Your task to perform on an android device: change notifications settings Image 0: 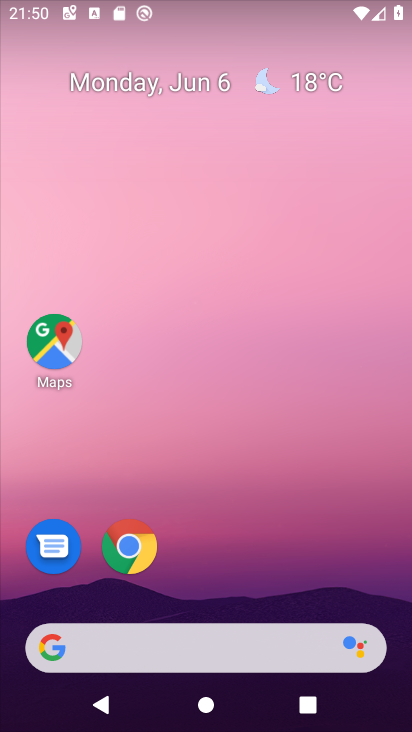
Step 0: drag from (376, 581) to (263, 13)
Your task to perform on an android device: change notifications settings Image 1: 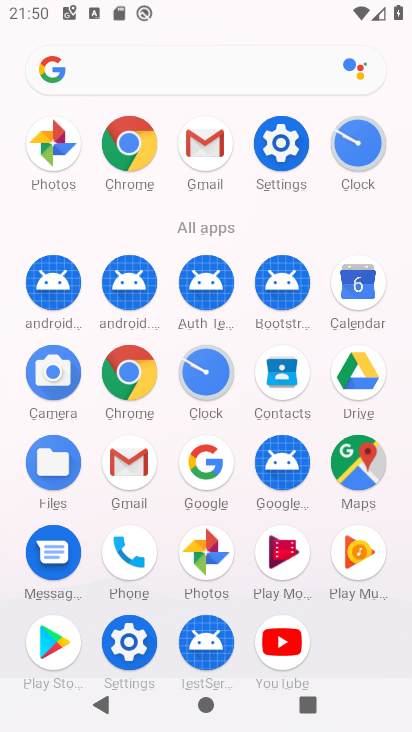
Step 1: click (128, 641)
Your task to perform on an android device: change notifications settings Image 2: 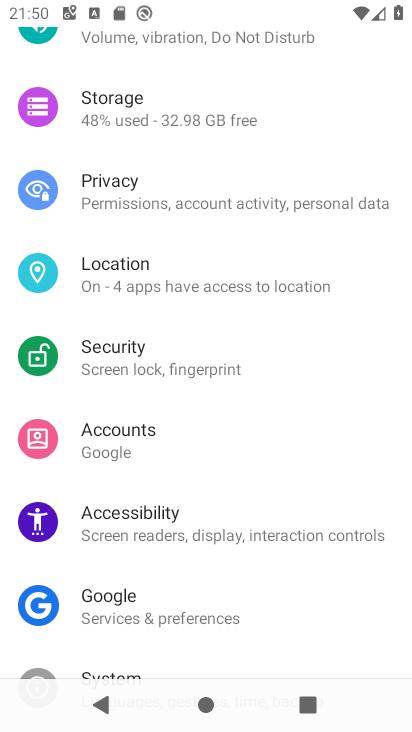
Step 2: drag from (265, 265) to (227, 632)
Your task to perform on an android device: change notifications settings Image 3: 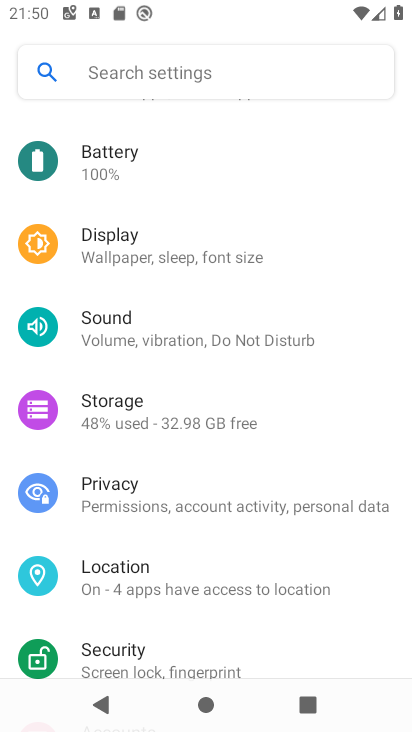
Step 3: drag from (305, 229) to (291, 494)
Your task to perform on an android device: change notifications settings Image 4: 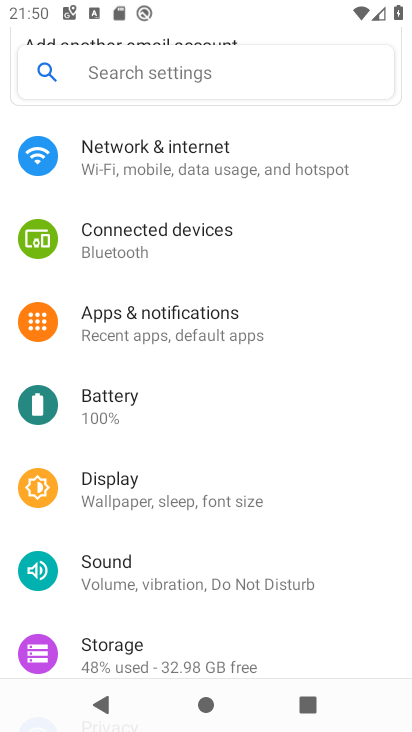
Step 4: click (138, 309)
Your task to perform on an android device: change notifications settings Image 5: 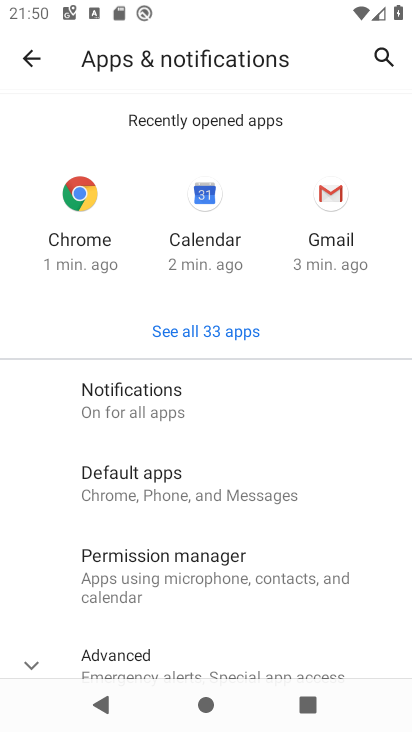
Step 5: click (95, 390)
Your task to perform on an android device: change notifications settings Image 6: 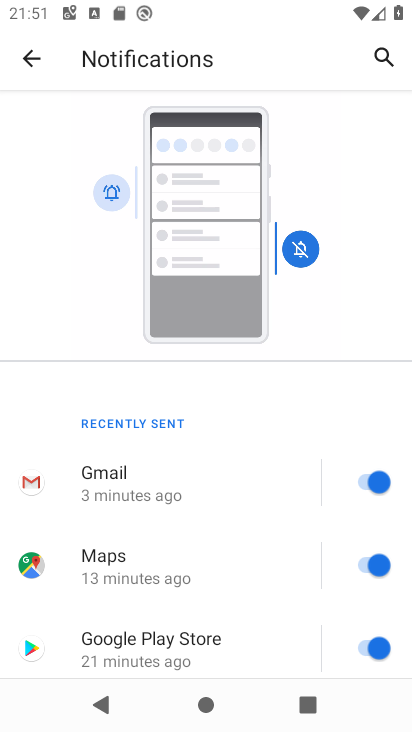
Step 6: drag from (321, 636) to (277, 227)
Your task to perform on an android device: change notifications settings Image 7: 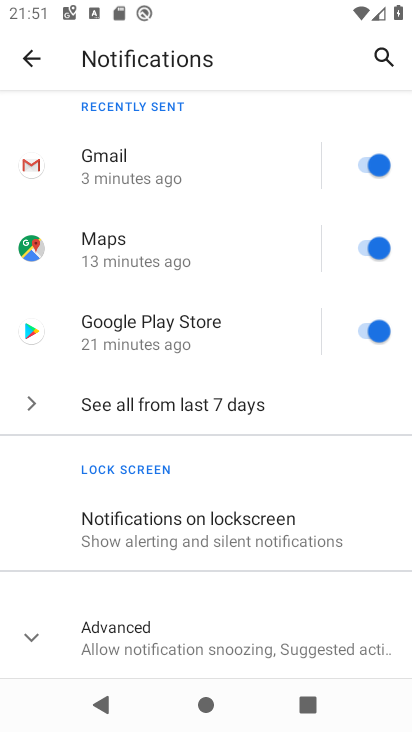
Step 7: click (23, 632)
Your task to perform on an android device: change notifications settings Image 8: 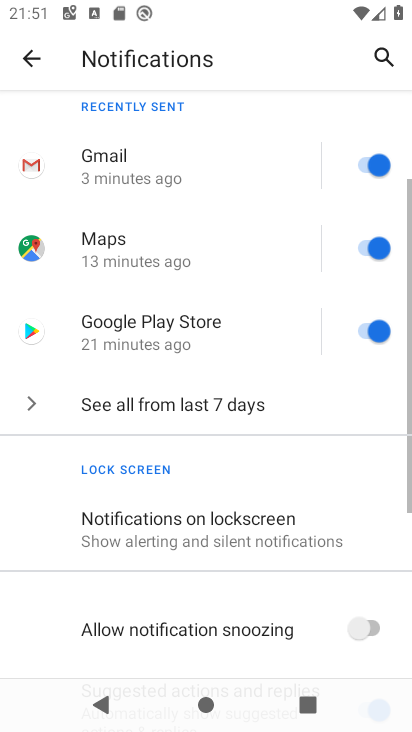
Step 8: drag from (235, 588) to (199, 136)
Your task to perform on an android device: change notifications settings Image 9: 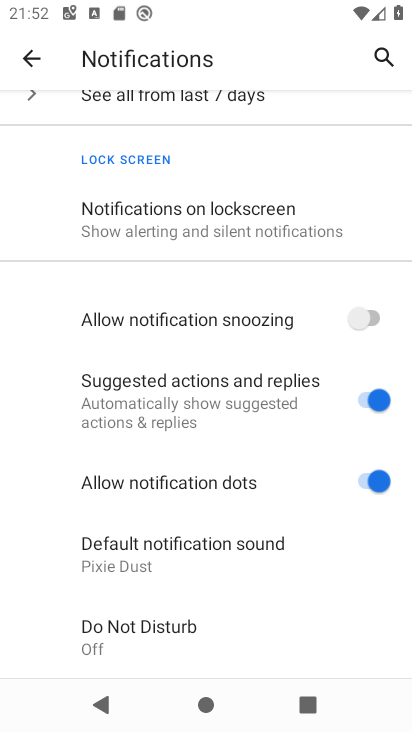
Step 9: click (373, 313)
Your task to perform on an android device: change notifications settings Image 10: 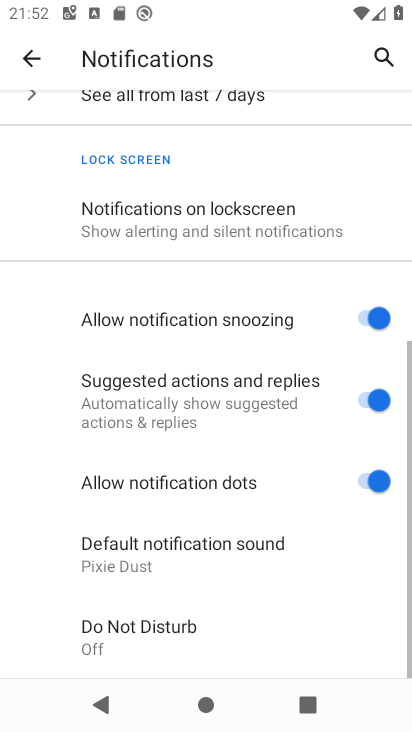
Step 10: click (362, 477)
Your task to perform on an android device: change notifications settings Image 11: 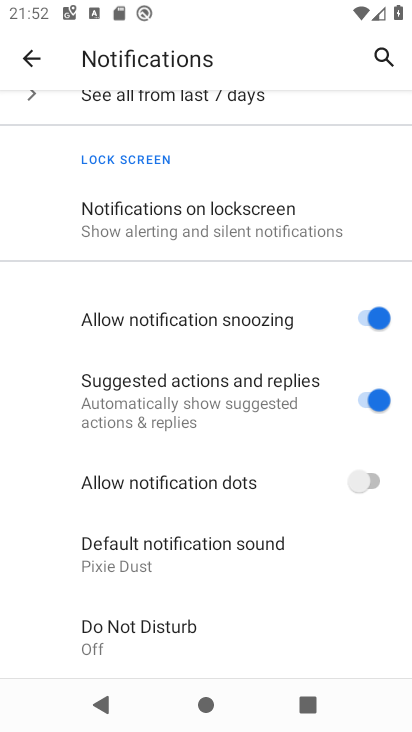
Step 11: task complete